Your task to perform on an android device: turn on the 24-hour format for clock Image 0: 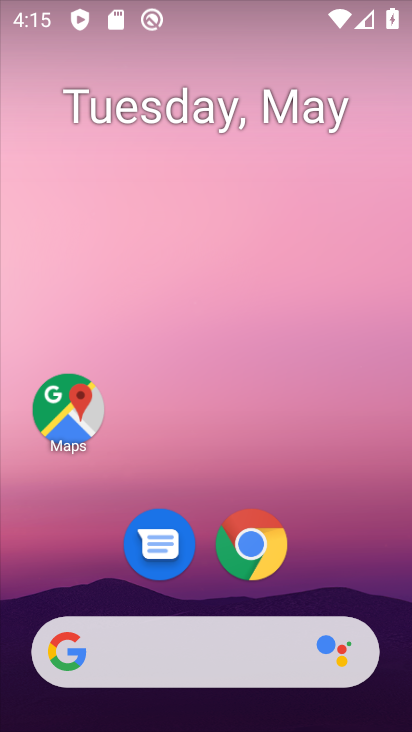
Step 0: click (178, 343)
Your task to perform on an android device: turn on the 24-hour format for clock Image 1: 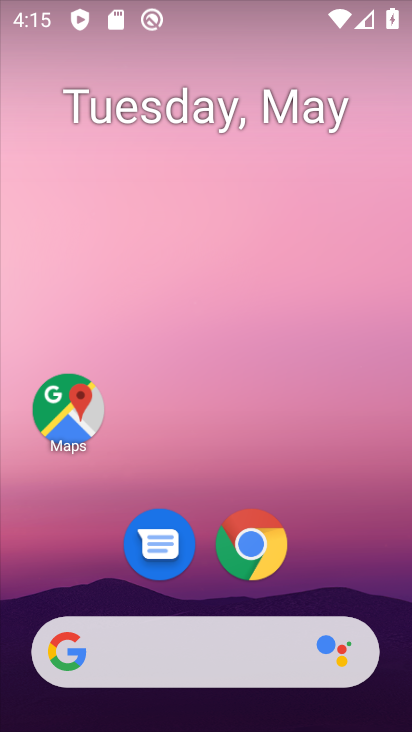
Step 1: drag from (204, 537) to (189, 323)
Your task to perform on an android device: turn on the 24-hour format for clock Image 2: 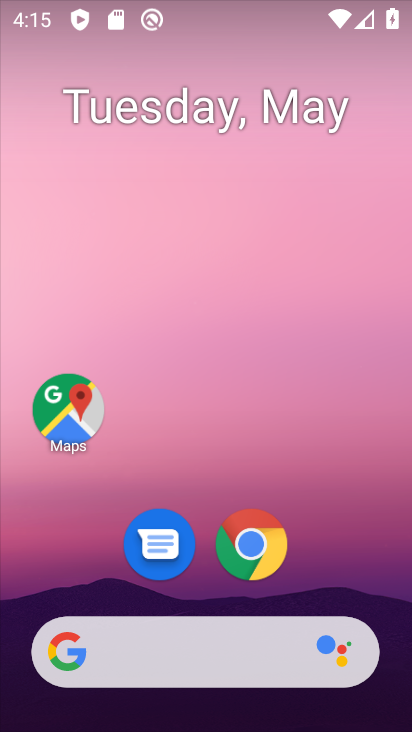
Step 2: drag from (260, 599) to (230, 359)
Your task to perform on an android device: turn on the 24-hour format for clock Image 3: 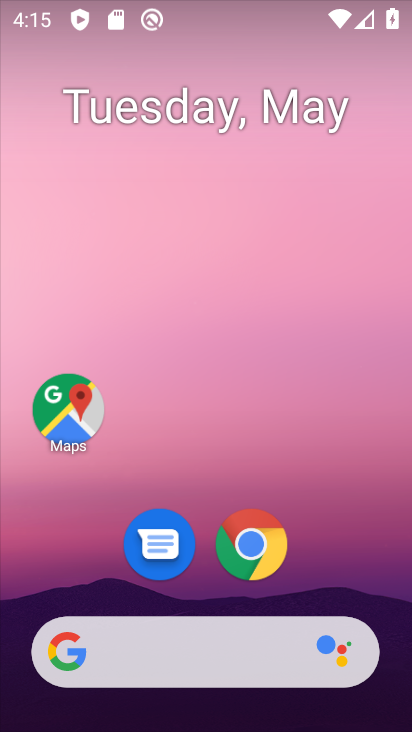
Step 3: drag from (232, 617) to (242, 283)
Your task to perform on an android device: turn on the 24-hour format for clock Image 4: 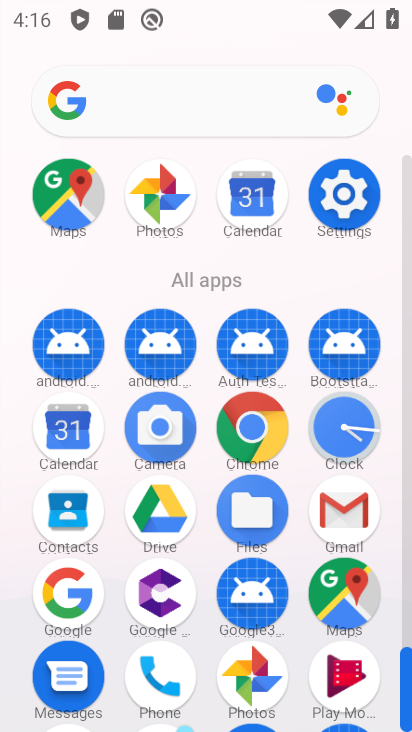
Step 4: click (352, 437)
Your task to perform on an android device: turn on the 24-hour format for clock Image 5: 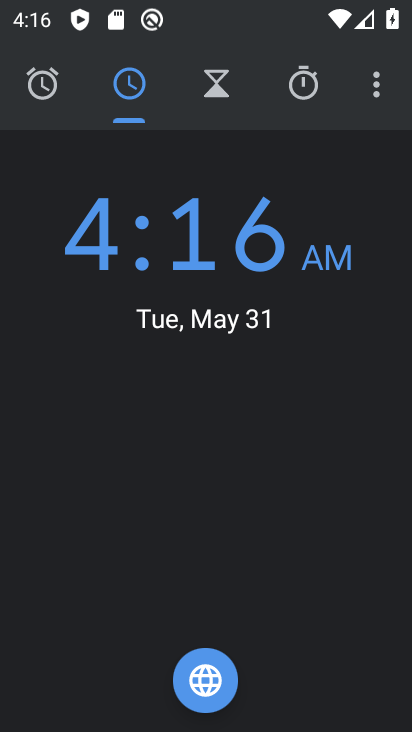
Step 5: click (376, 92)
Your task to perform on an android device: turn on the 24-hour format for clock Image 6: 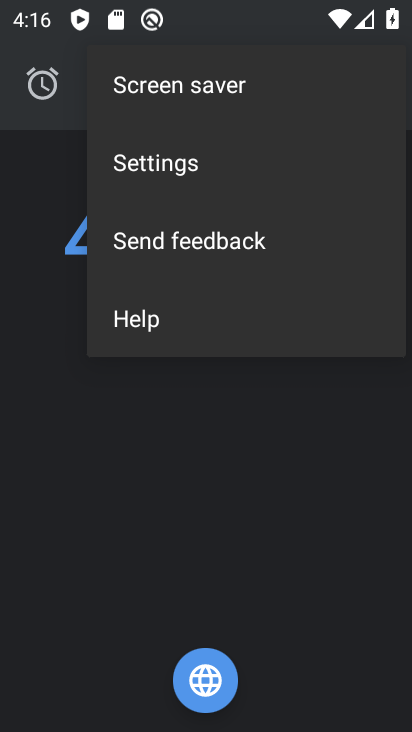
Step 6: click (204, 166)
Your task to perform on an android device: turn on the 24-hour format for clock Image 7: 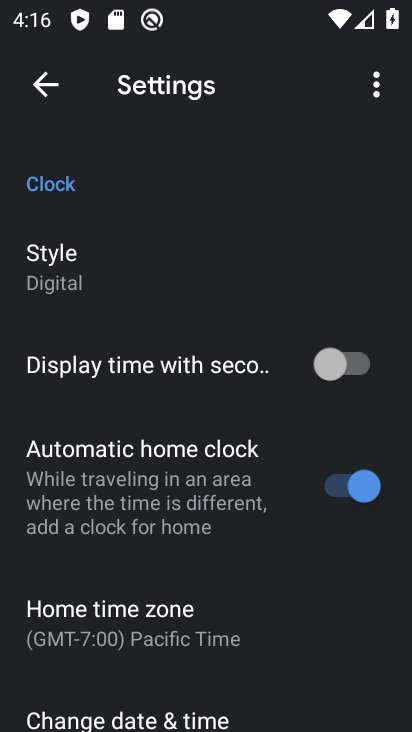
Step 7: drag from (171, 639) to (153, 438)
Your task to perform on an android device: turn on the 24-hour format for clock Image 8: 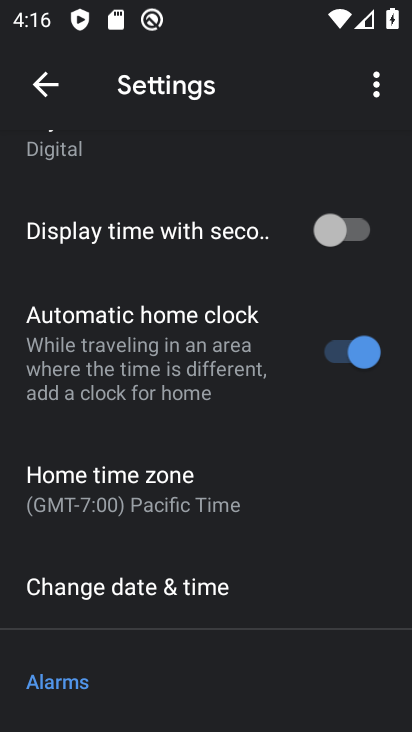
Step 8: click (144, 585)
Your task to perform on an android device: turn on the 24-hour format for clock Image 9: 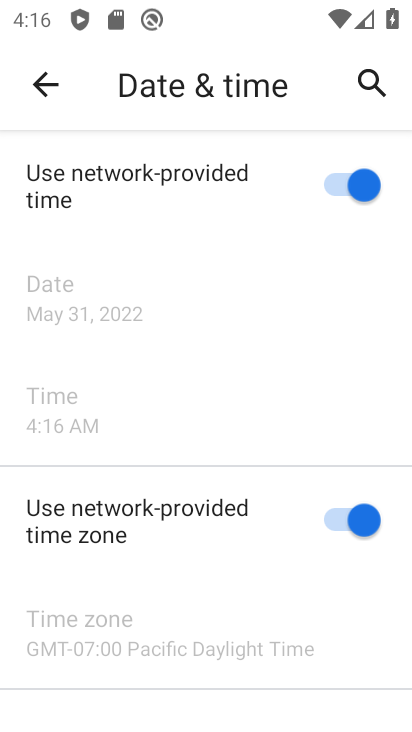
Step 9: drag from (160, 655) to (135, 196)
Your task to perform on an android device: turn on the 24-hour format for clock Image 10: 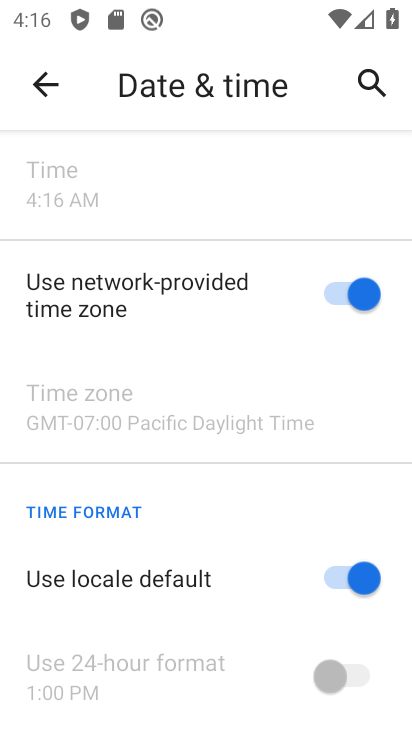
Step 10: click (339, 577)
Your task to perform on an android device: turn on the 24-hour format for clock Image 11: 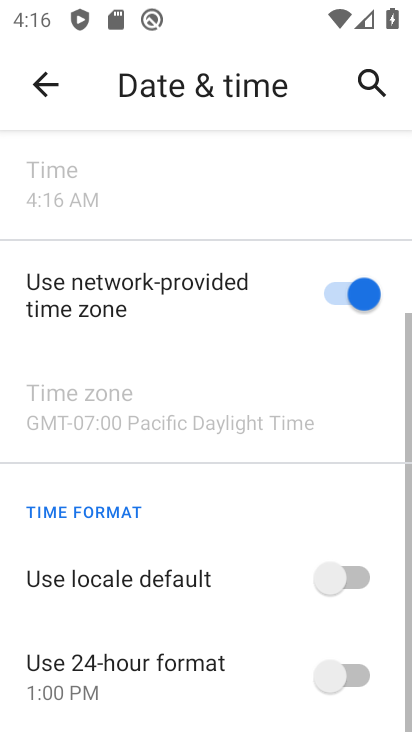
Step 11: click (356, 676)
Your task to perform on an android device: turn on the 24-hour format for clock Image 12: 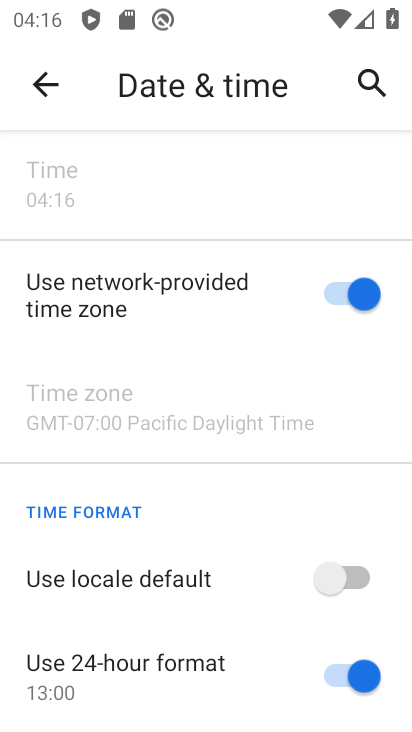
Step 12: task complete